Your task to perform on an android device: Search for Italian restaurants on Maps Image 0: 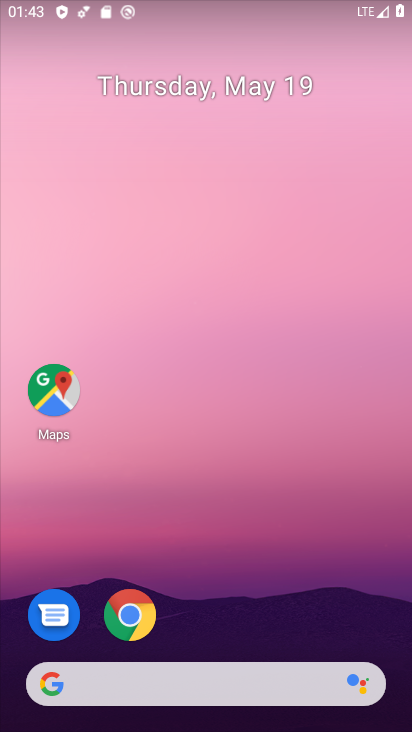
Step 0: click (42, 368)
Your task to perform on an android device: Search for Italian restaurants on Maps Image 1: 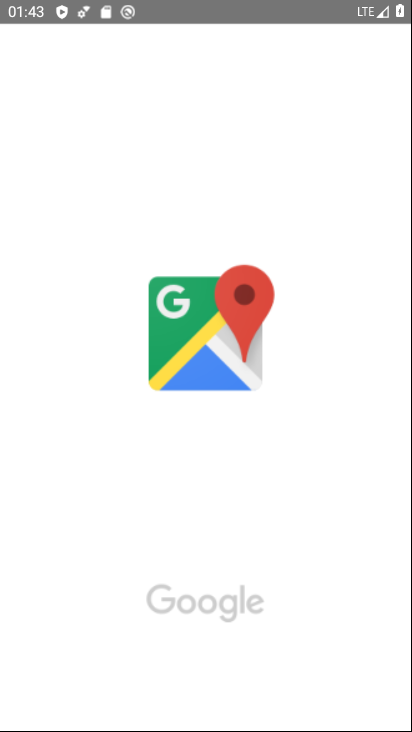
Step 1: task complete